Your task to perform on an android device: turn pop-ups off in chrome Image 0: 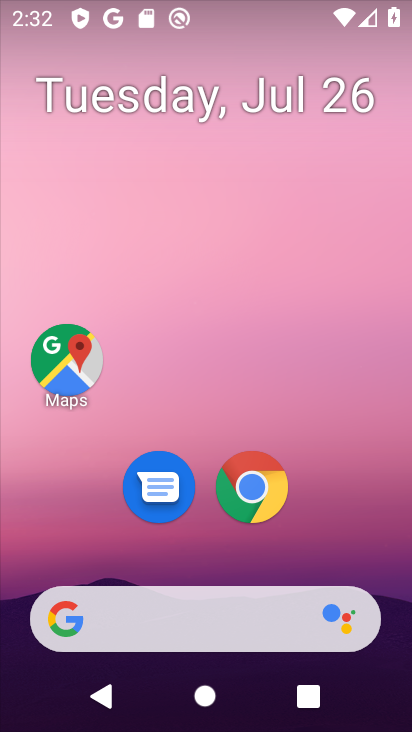
Step 0: click (268, 478)
Your task to perform on an android device: turn pop-ups off in chrome Image 1: 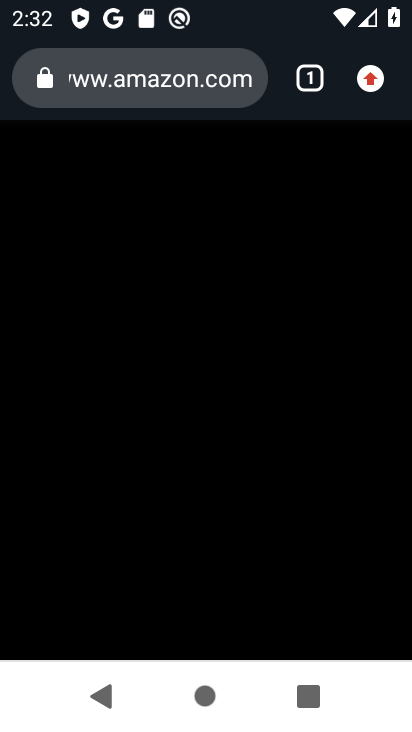
Step 1: drag from (366, 78) to (93, 558)
Your task to perform on an android device: turn pop-ups off in chrome Image 2: 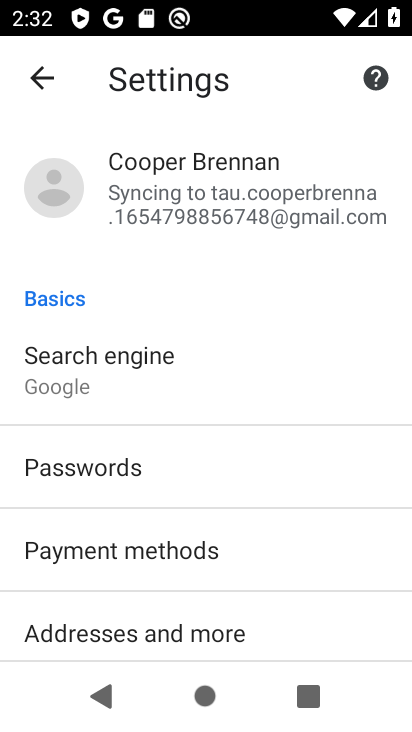
Step 2: drag from (135, 621) to (191, 157)
Your task to perform on an android device: turn pop-ups off in chrome Image 3: 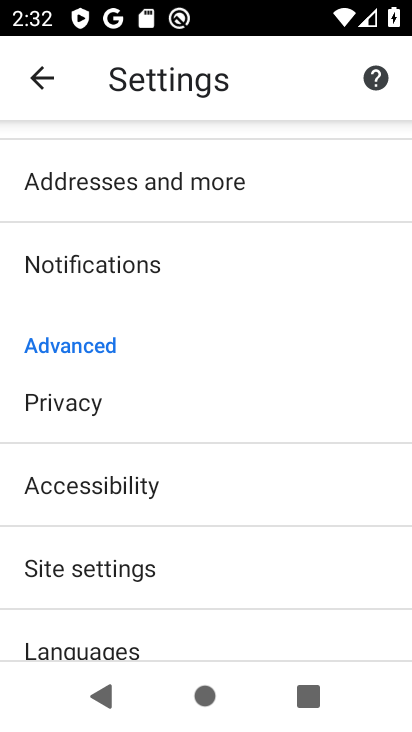
Step 3: click (97, 581)
Your task to perform on an android device: turn pop-ups off in chrome Image 4: 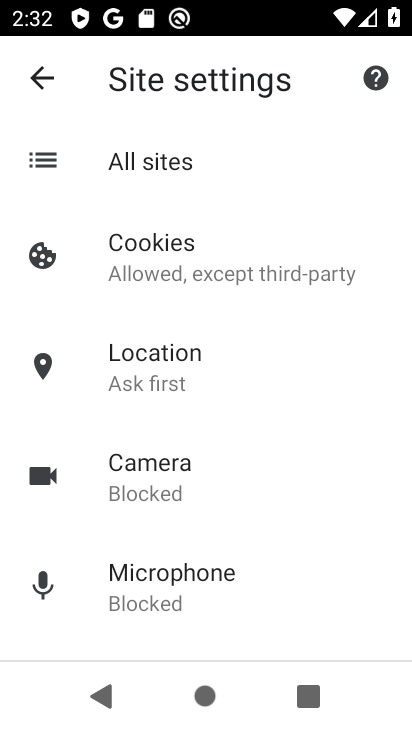
Step 4: drag from (159, 557) to (264, 138)
Your task to perform on an android device: turn pop-ups off in chrome Image 5: 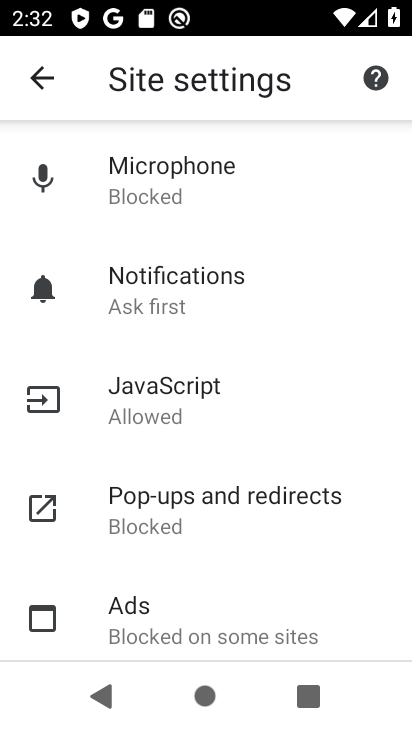
Step 5: click (191, 522)
Your task to perform on an android device: turn pop-ups off in chrome Image 6: 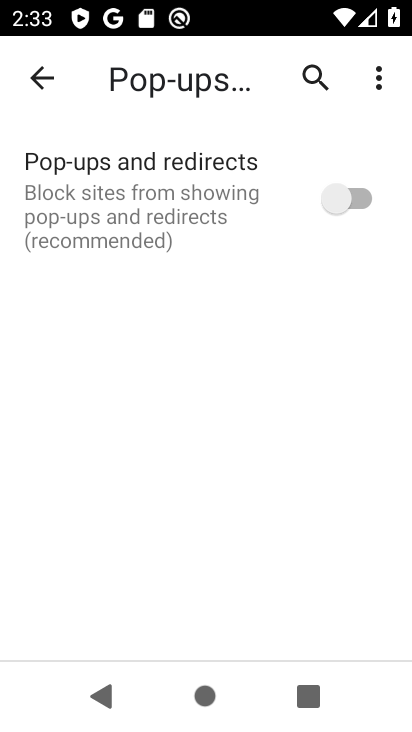
Step 6: task complete